Your task to perform on an android device: Show me popular games on the Play Store Image 0: 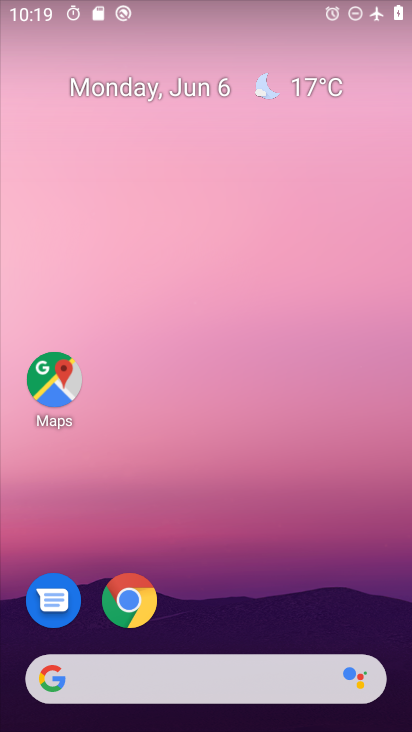
Step 0: drag from (277, 560) to (211, 15)
Your task to perform on an android device: Show me popular games on the Play Store Image 1: 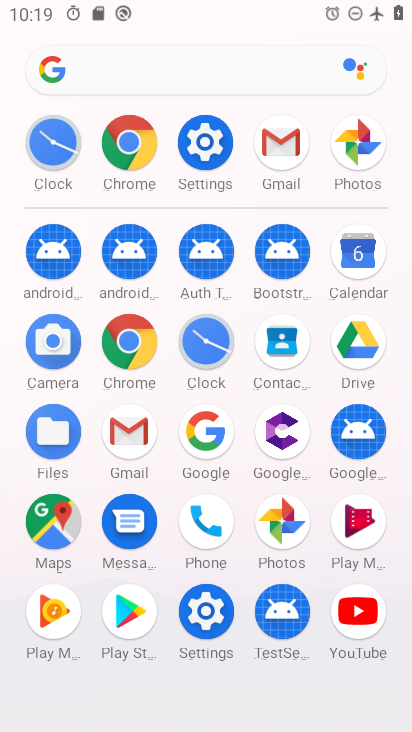
Step 1: click (210, 142)
Your task to perform on an android device: Show me popular games on the Play Store Image 2: 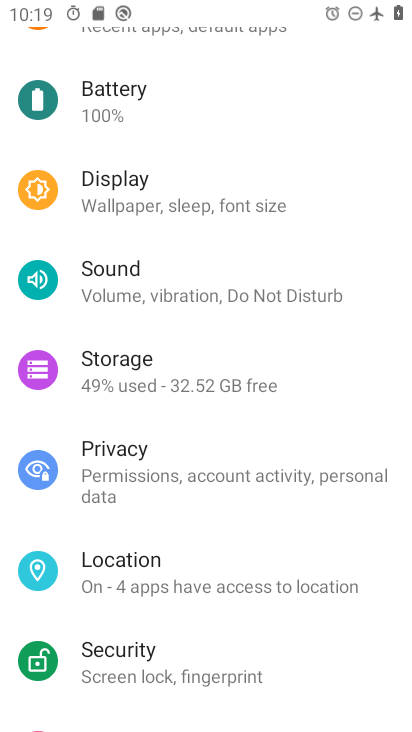
Step 2: drag from (238, 117) to (236, 647)
Your task to perform on an android device: Show me popular games on the Play Store Image 3: 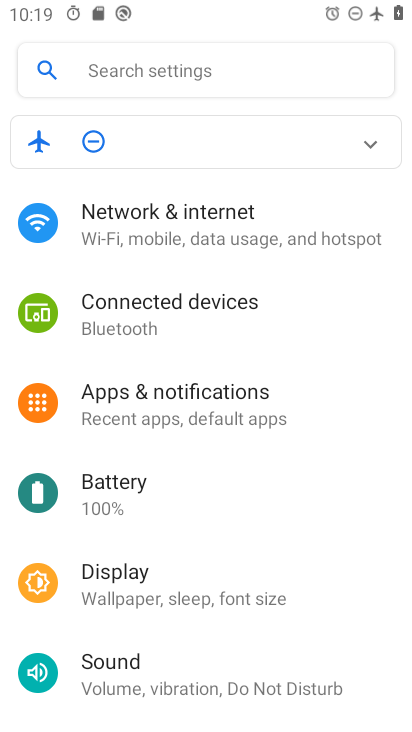
Step 3: click (182, 210)
Your task to perform on an android device: Show me popular games on the Play Store Image 4: 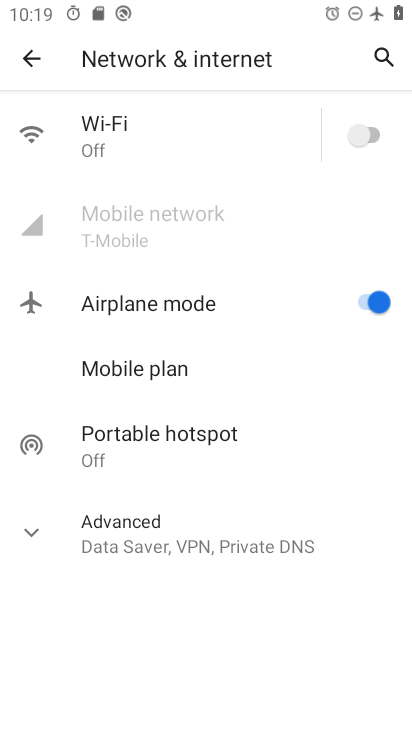
Step 4: click (364, 139)
Your task to perform on an android device: Show me popular games on the Play Store Image 5: 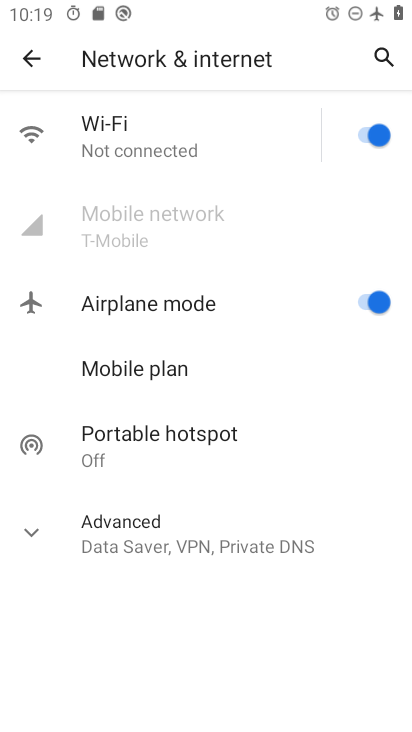
Step 5: press home button
Your task to perform on an android device: Show me popular games on the Play Store Image 6: 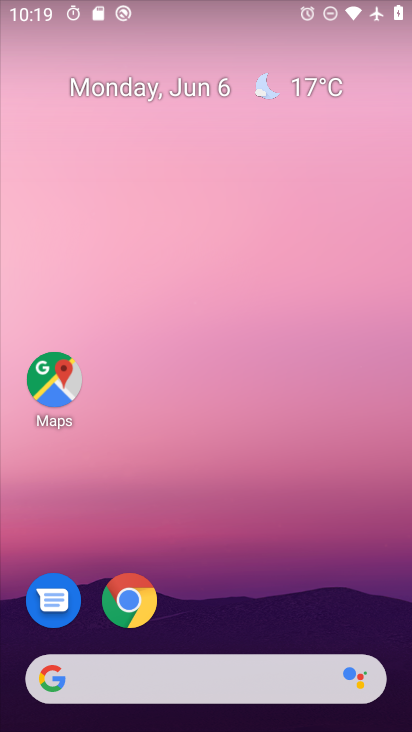
Step 6: drag from (317, 585) to (241, 125)
Your task to perform on an android device: Show me popular games on the Play Store Image 7: 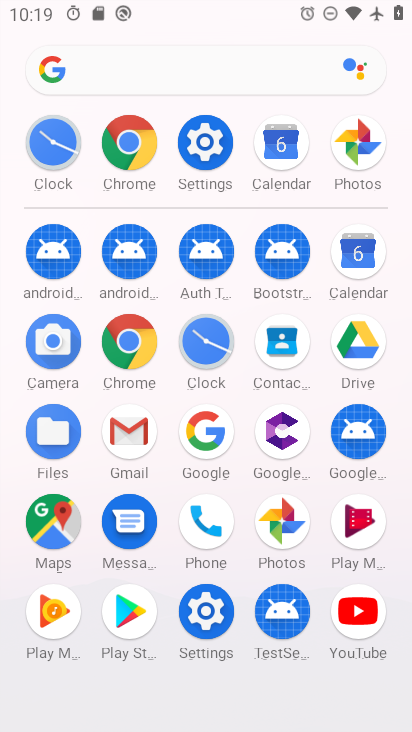
Step 7: click (135, 606)
Your task to perform on an android device: Show me popular games on the Play Store Image 8: 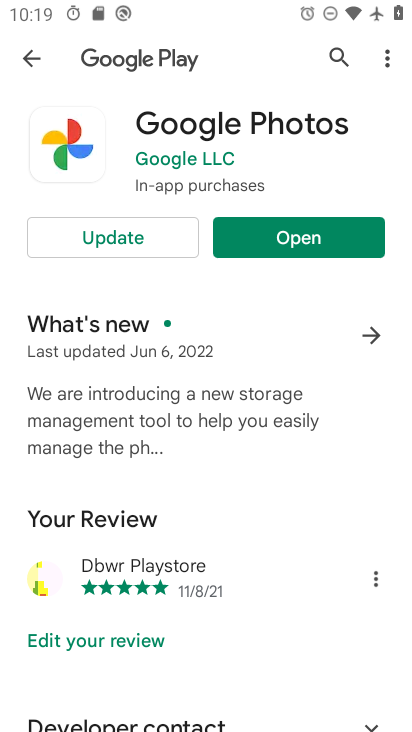
Step 8: click (118, 238)
Your task to perform on an android device: Show me popular games on the Play Store Image 9: 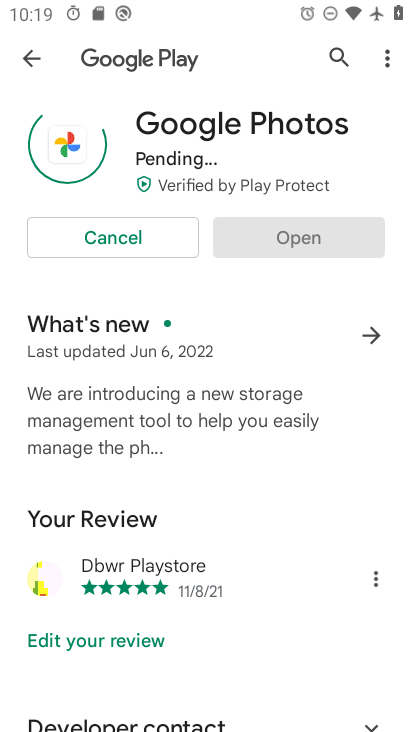
Step 9: click (24, 53)
Your task to perform on an android device: Show me popular games on the Play Store Image 10: 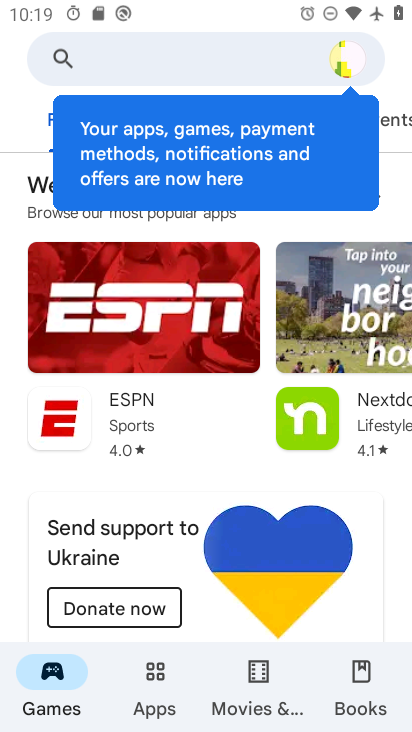
Step 10: click (21, 133)
Your task to perform on an android device: Show me popular games on the Play Store Image 11: 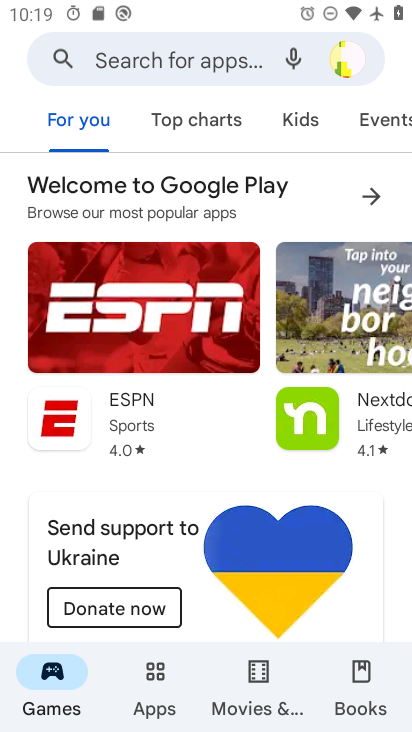
Step 11: click (179, 118)
Your task to perform on an android device: Show me popular games on the Play Store Image 12: 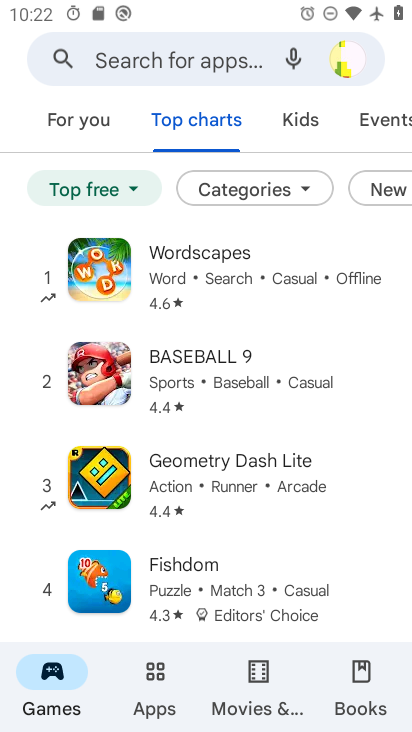
Step 12: task complete